Your task to perform on an android device: clear all cookies in the chrome app Image 0: 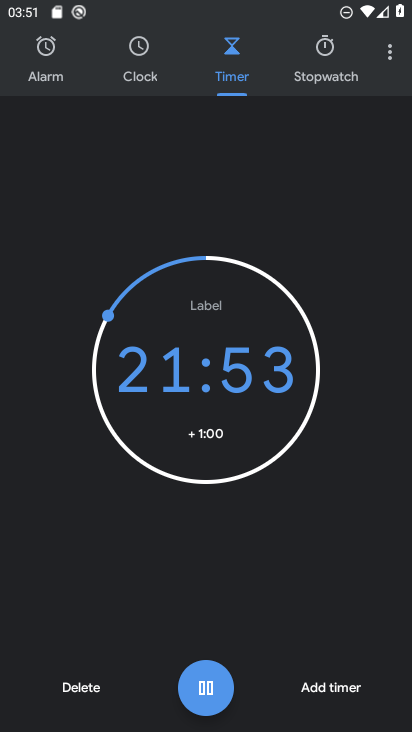
Step 0: press back button
Your task to perform on an android device: clear all cookies in the chrome app Image 1: 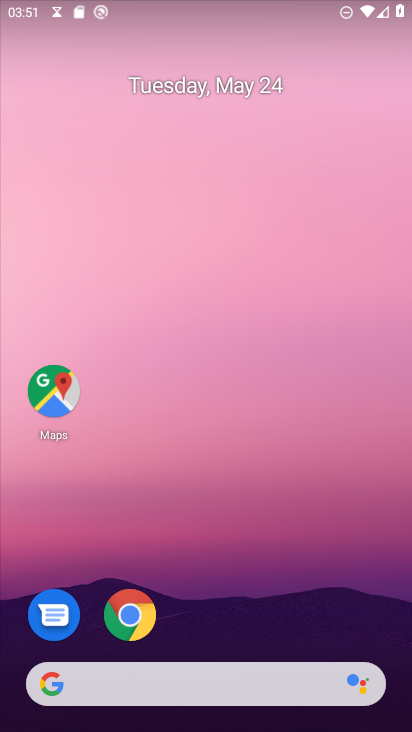
Step 1: drag from (237, 546) to (198, 7)
Your task to perform on an android device: clear all cookies in the chrome app Image 2: 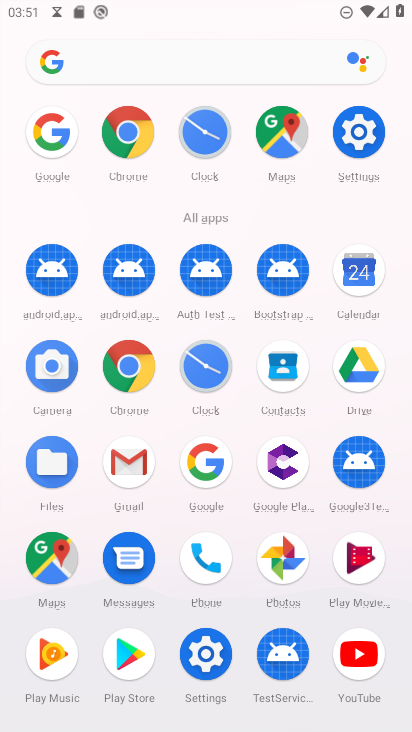
Step 2: click (125, 129)
Your task to perform on an android device: clear all cookies in the chrome app Image 3: 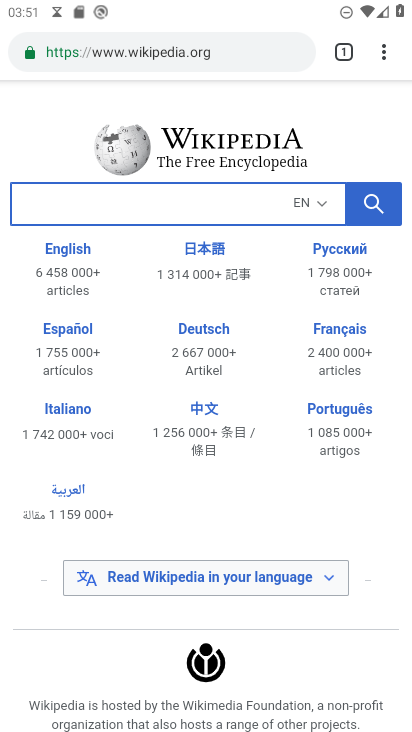
Step 3: drag from (384, 53) to (211, 626)
Your task to perform on an android device: clear all cookies in the chrome app Image 4: 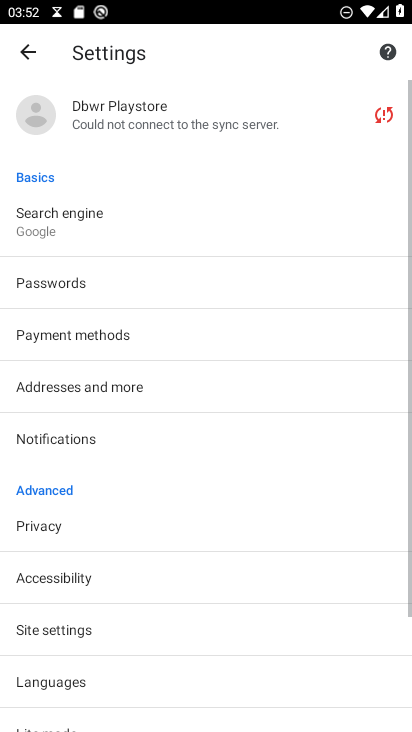
Step 4: drag from (155, 647) to (159, 144)
Your task to perform on an android device: clear all cookies in the chrome app Image 5: 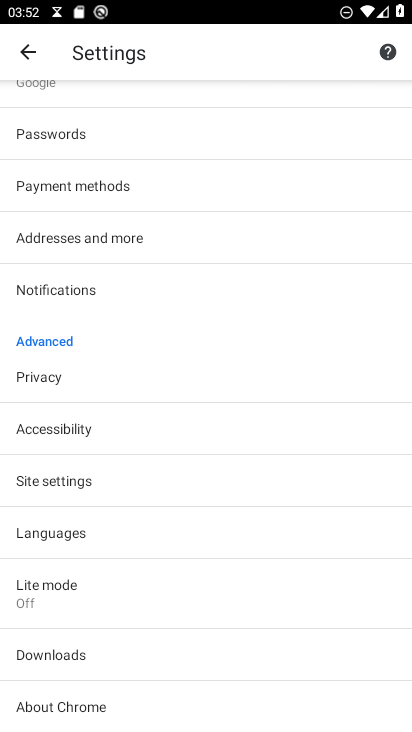
Step 5: drag from (144, 584) to (187, 274)
Your task to perform on an android device: clear all cookies in the chrome app Image 6: 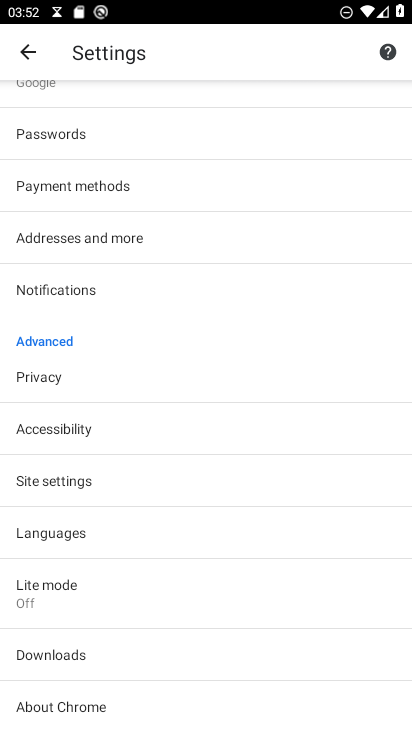
Step 6: drag from (133, 656) to (166, 235)
Your task to perform on an android device: clear all cookies in the chrome app Image 7: 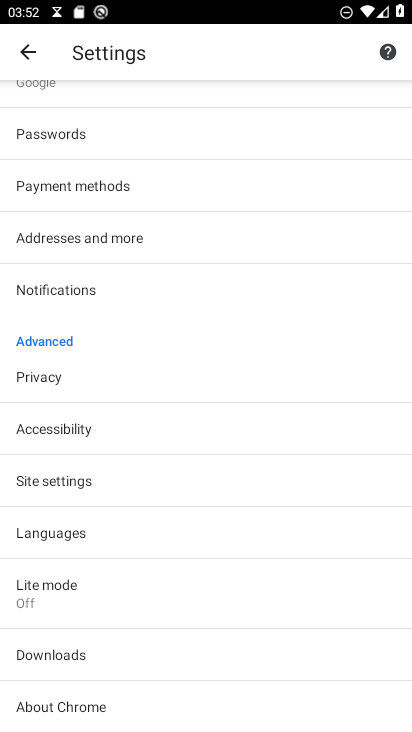
Step 7: click (79, 474)
Your task to perform on an android device: clear all cookies in the chrome app Image 8: 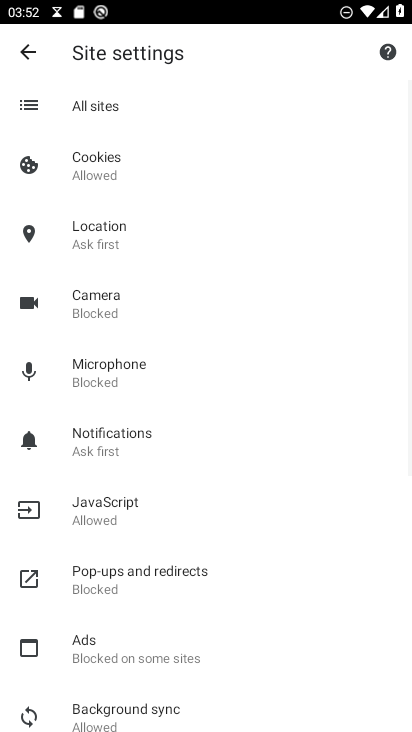
Step 8: drag from (187, 594) to (228, 147)
Your task to perform on an android device: clear all cookies in the chrome app Image 9: 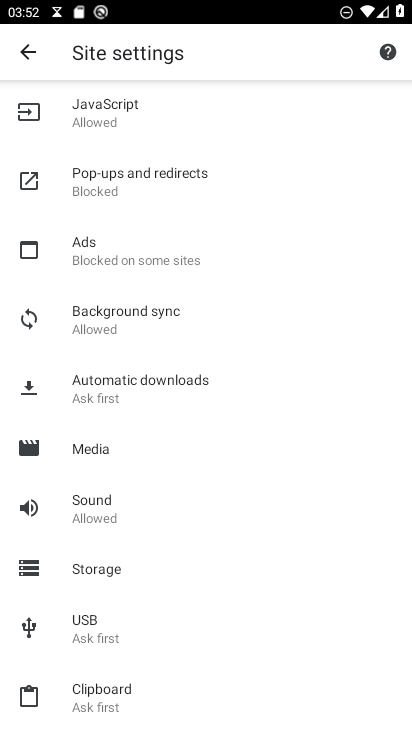
Step 9: drag from (171, 609) to (200, 182)
Your task to perform on an android device: clear all cookies in the chrome app Image 10: 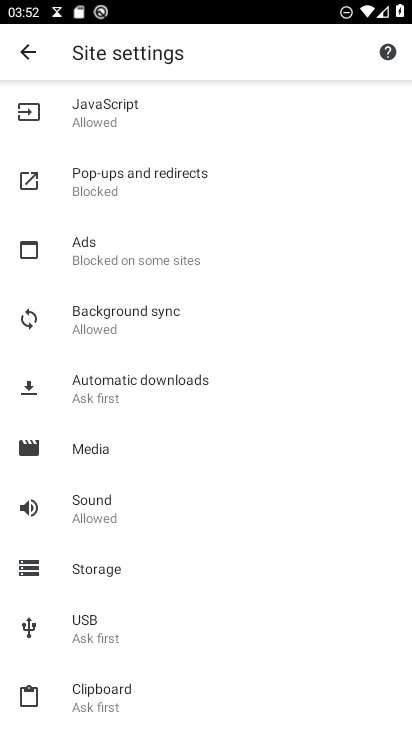
Step 10: click (28, 65)
Your task to perform on an android device: clear all cookies in the chrome app Image 11: 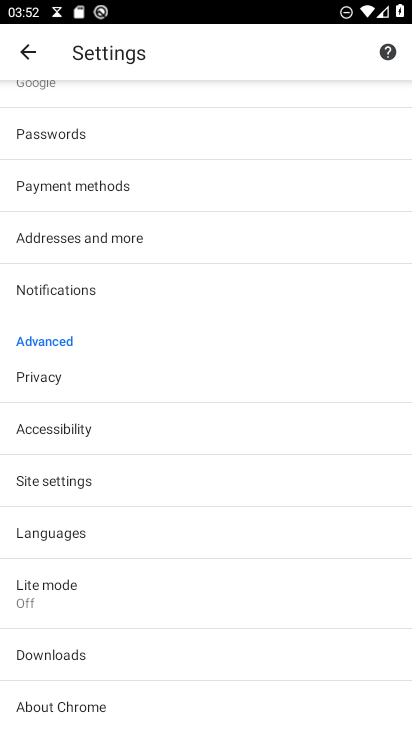
Step 11: drag from (230, 234) to (231, 556)
Your task to perform on an android device: clear all cookies in the chrome app Image 12: 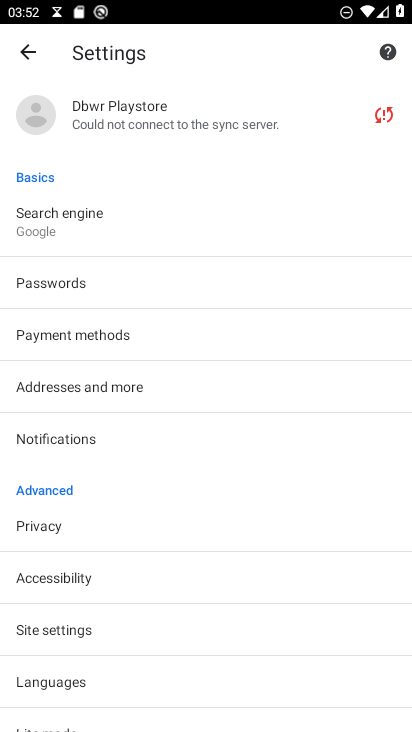
Step 12: click (84, 525)
Your task to perform on an android device: clear all cookies in the chrome app Image 13: 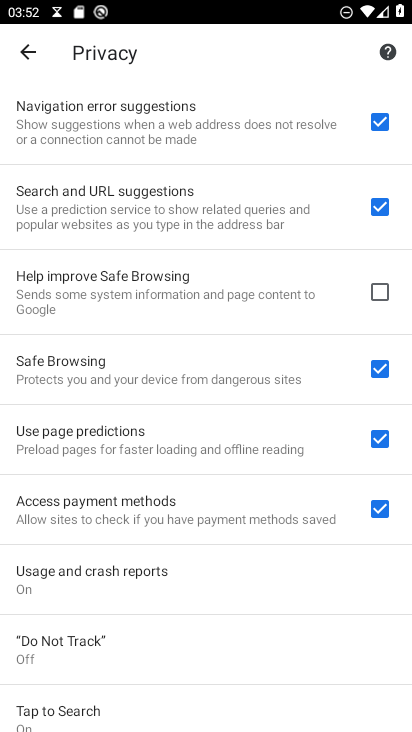
Step 13: drag from (275, 593) to (259, 179)
Your task to perform on an android device: clear all cookies in the chrome app Image 14: 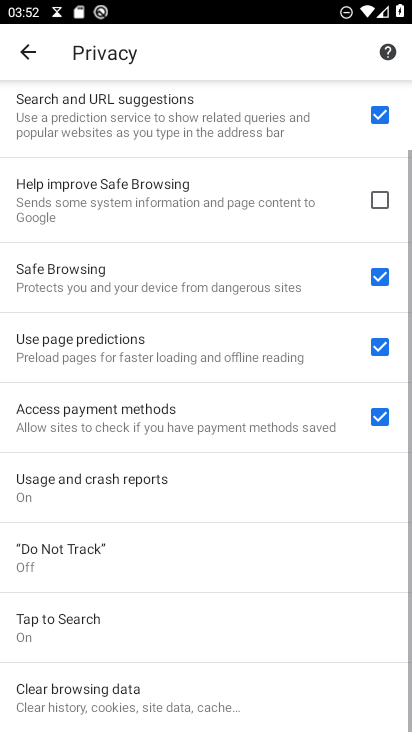
Step 14: click (122, 698)
Your task to perform on an android device: clear all cookies in the chrome app Image 15: 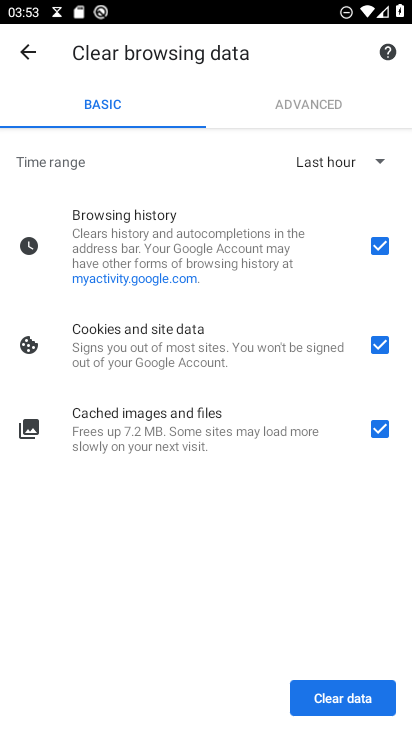
Step 15: click (383, 238)
Your task to perform on an android device: clear all cookies in the chrome app Image 16: 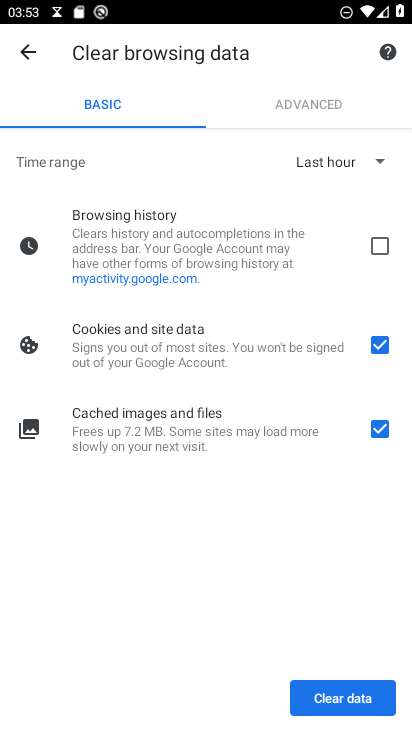
Step 16: click (379, 425)
Your task to perform on an android device: clear all cookies in the chrome app Image 17: 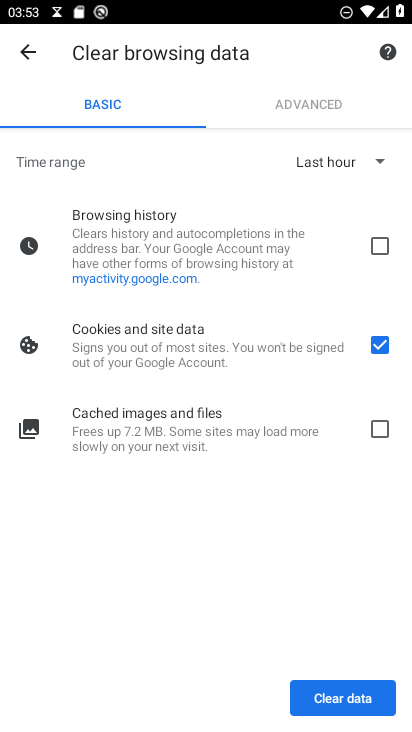
Step 17: click (342, 704)
Your task to perform on an android device: clear all cookies in the chrome app Image 18: 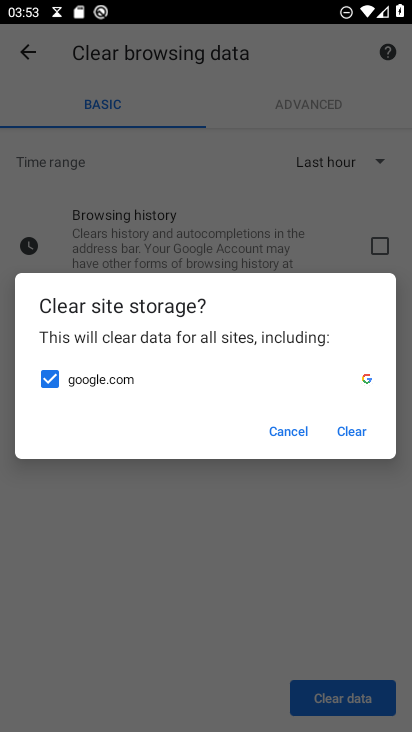
Step 18: click (341, 431)
Your task to perform on an android device: clear all cookies in the chrome app Image 19: 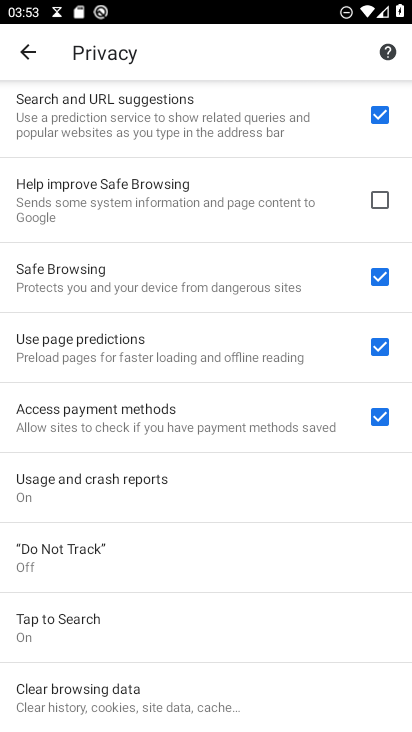
Step 19: task complete